Your task to perform on an android device: toggle sleep mode Image 0: 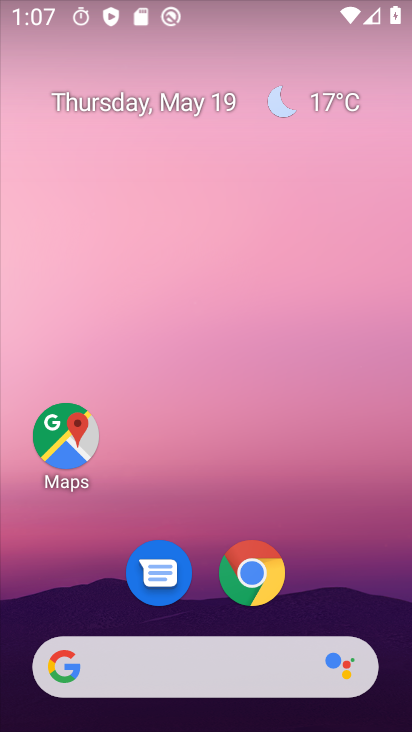
Step 0: drag from (193, 602) to (269, 157)
Your task to perform on an android device: toggle sleep mode Image 1: 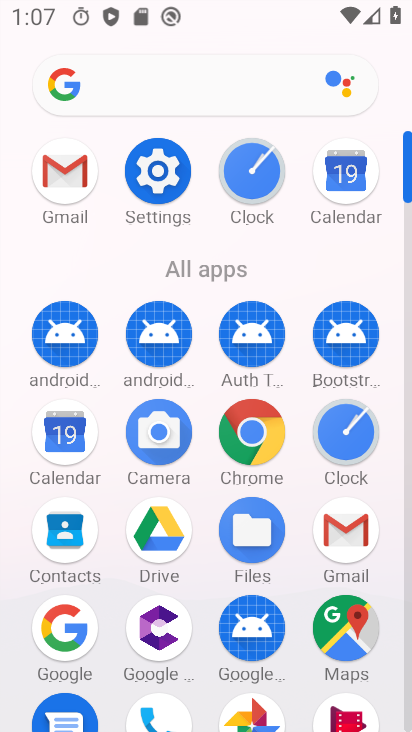
Step 1: click (156, 162)
Your task to perform on an android device: toggle sleep mode Image 2: 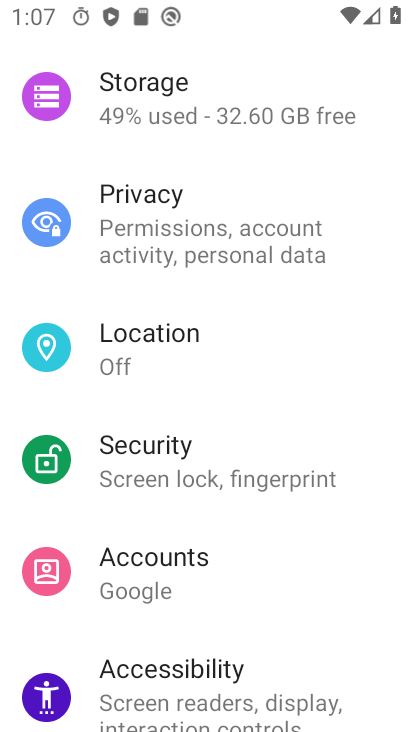
Step 2: drag from (156, 123) to (147, 677)
Your task to perform on an android device: toggle sleep mode Image 3: 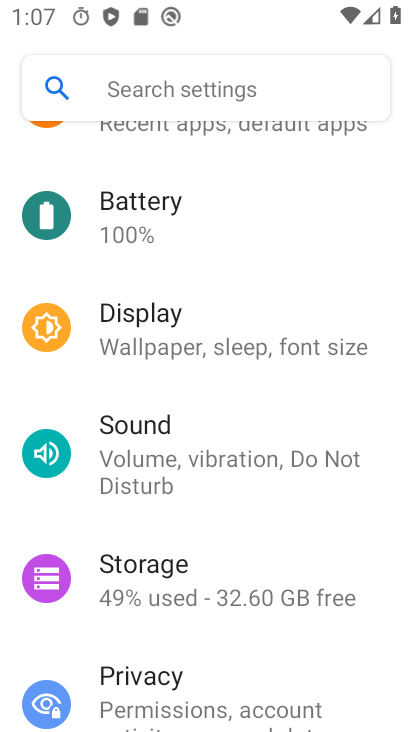
Step 3: click (154, 71)
Your task to perform on an android device: toggle sleep mode Image 4: 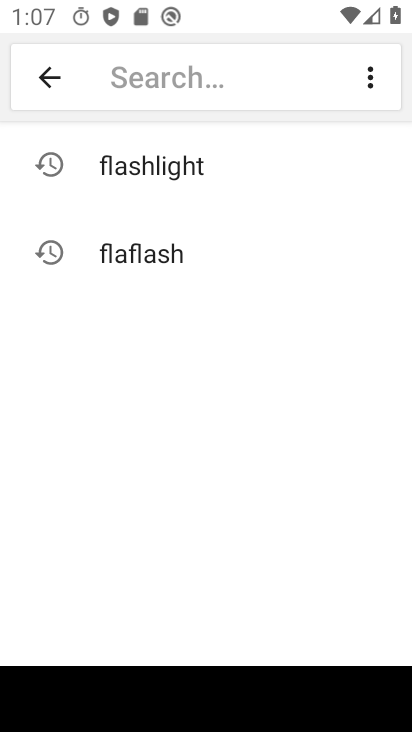
Step 4: type "sleep mode"
Your task to perform on an android device: toggle sleep mode Image 5: 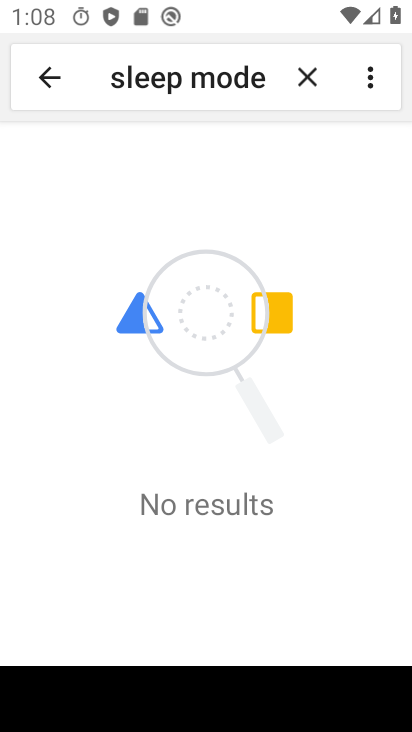
Step 5: task complete